Your task to perform on an android device: toggle notifications settings in the gmail app Image 0: 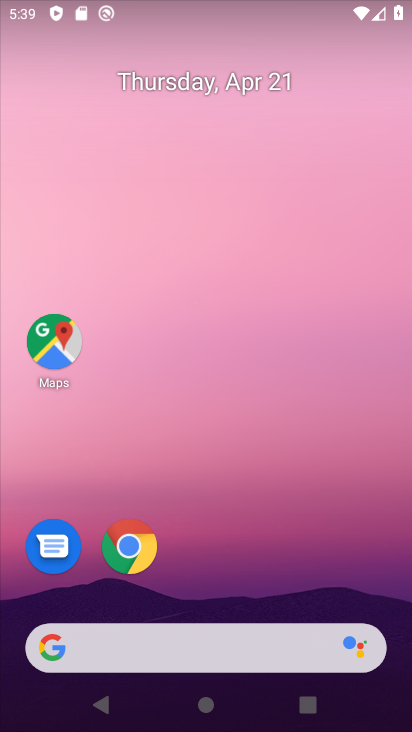
Step 0: drag from (252, 522) to (11, 0)
Your task to perform on an android device: toggle notifications settings in the gmail app Image 1: 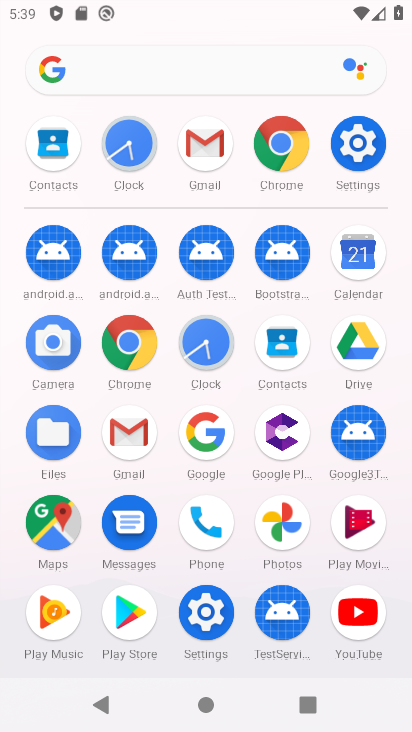
Step 1: click (123, 426)
Your task to perform on an android device: toggle notifications settings in the gmail app Image 2: 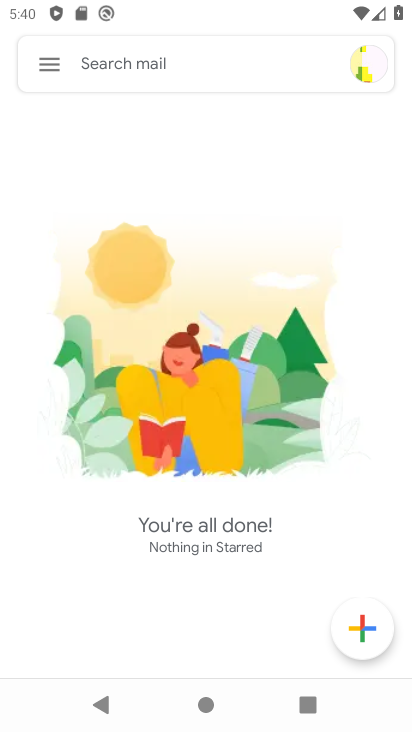
Step 2: click (49, 62)
Your task to perform on an android device: toggle notifications settings in the gmail app Image 3: 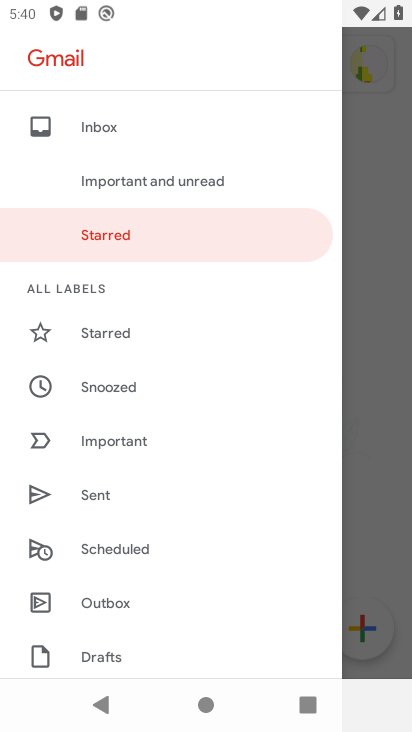
Step 3: drag from (217, 614) to (183, 243)
Your task to perform on an android device: toggle notifications settings in the gmail app Image 4: 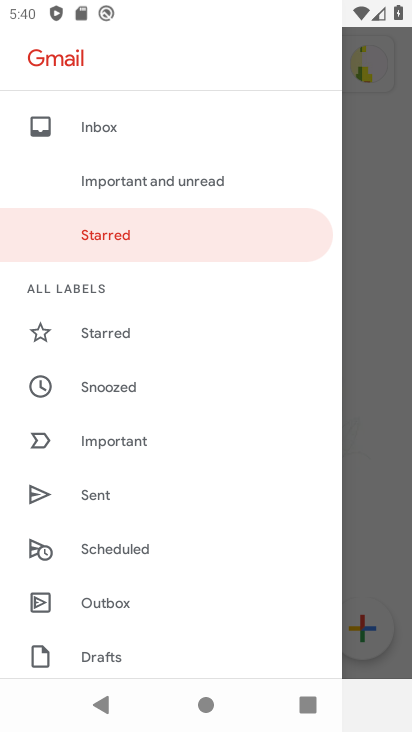
Step 4: drag from (201, 615) to (226, 196)
Your task to perform on an android device: toggle notifications settings in the gmail app Image 5: 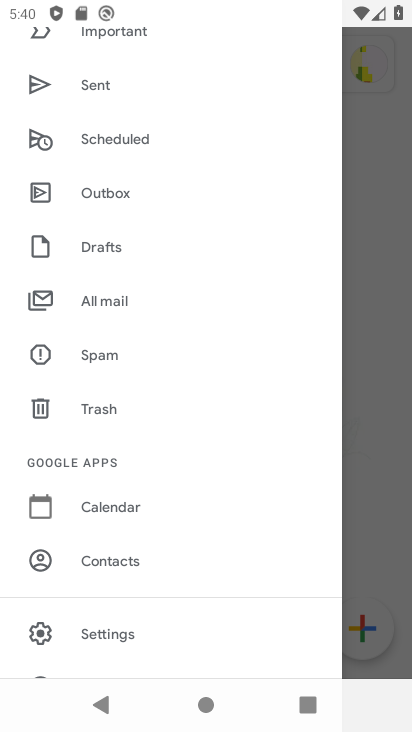
Step 5: click (143, 629)
Your task to perform on an android device: toggle notifications settings in the gmail app Image 6: 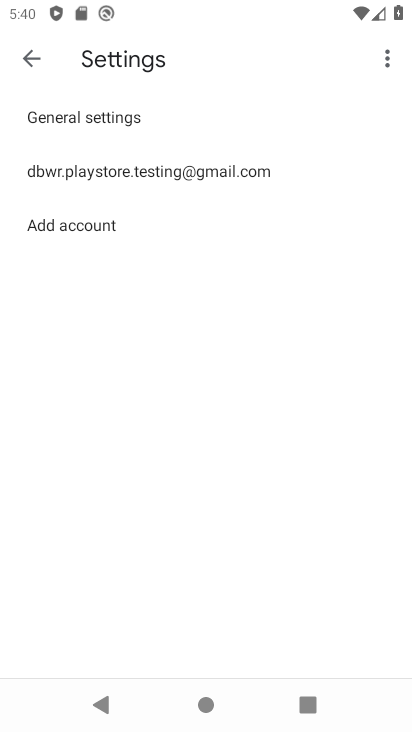
Step 6: click (131, 118)
Your task to perform on an android device: toggle notifications settings in the gmail app Image 7: 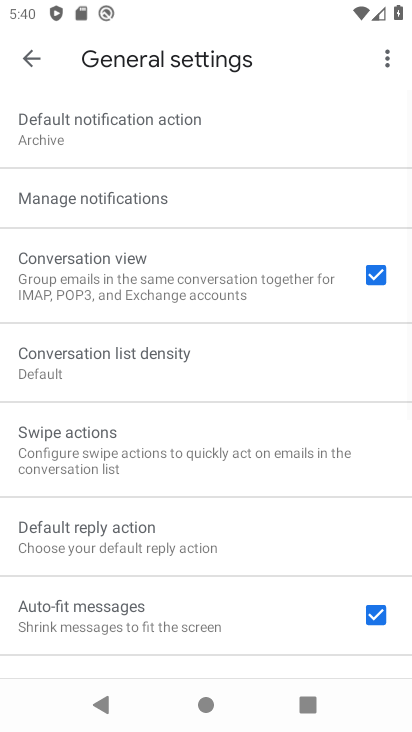
Step 7: click (154, 198)
Your task to perform on an android device: toggle notifications settings in the gmail app Image 8: 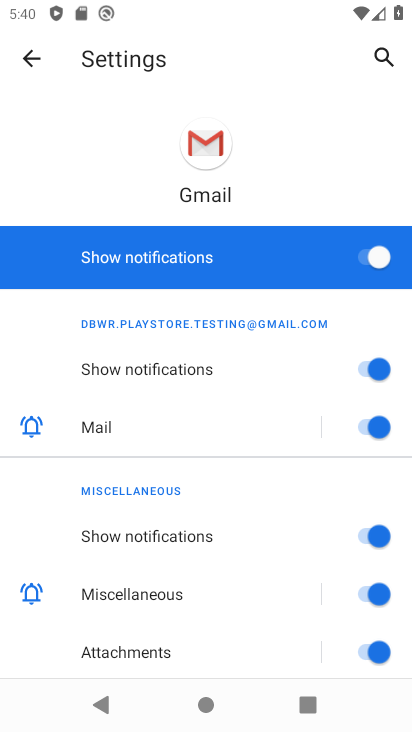
Step 8: click (360, 258)
Your task to perform on an android device: toggle notifications settings in the gmail app Image 9: 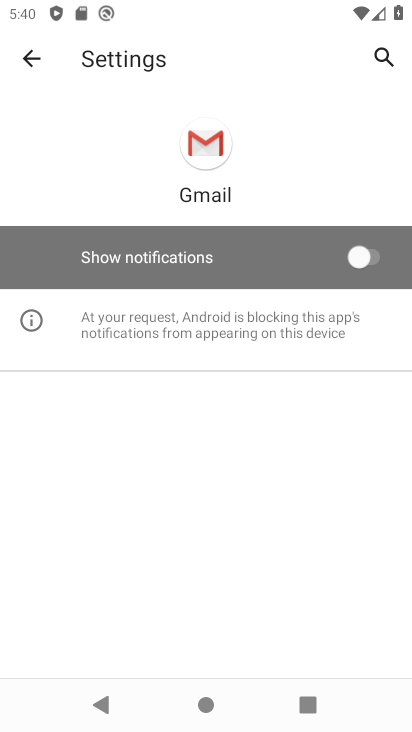
Step 9: task complete